Your task to perform on an android device: What's the weather going to be this weekend? Image 0: 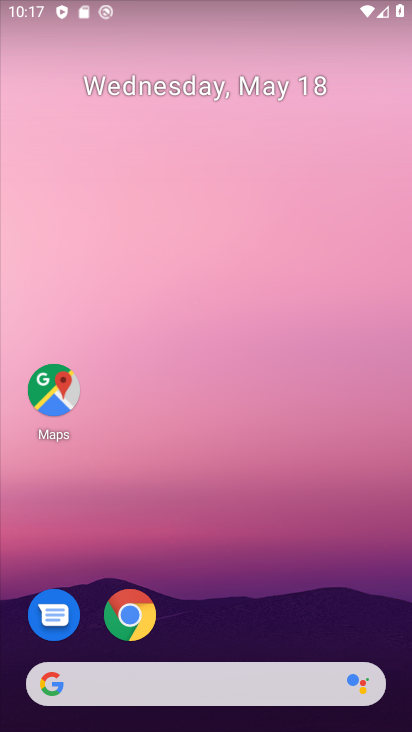
Step 0: drag from (213, 536) to (194, 27)
Your task to perform on an android device: What's the weather going to be this weekend? Image 1: 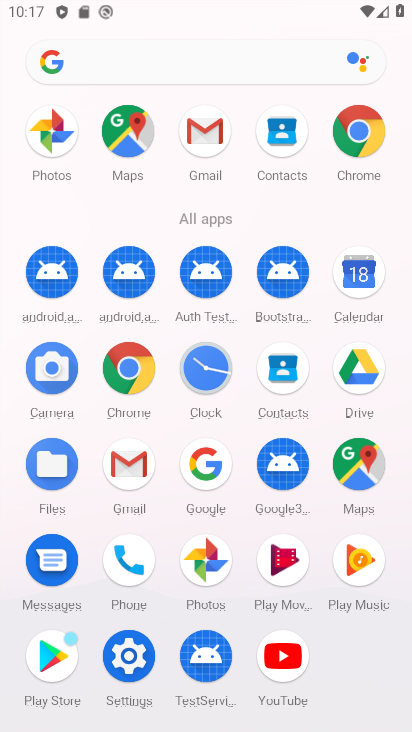
Step 1: drag from (9, 480) to (13, 211)
Your task to perform on an android device: What's the weather going to be this weekend? Image 2: 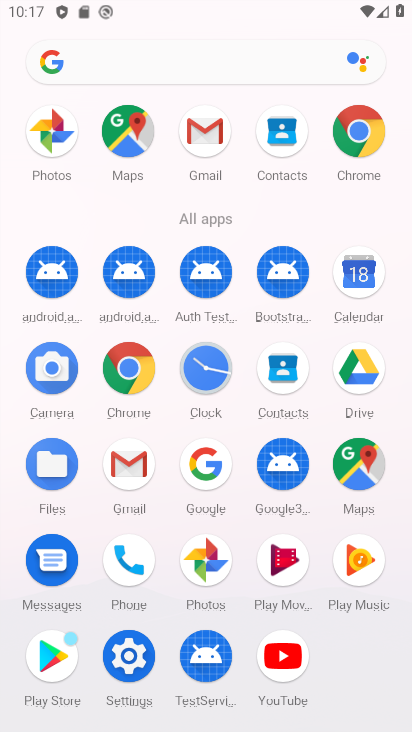
Step 2: click (128, 370)
Your task to perform on an android device: What's the weather going to be this weekend? Image 3: 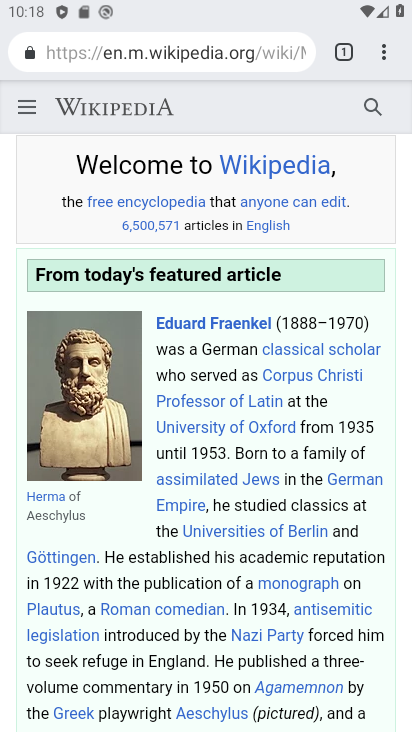
Step 3: click (154, 46)
Your task to perform on an android device: What's the weather going to be this weekend? Image 4: 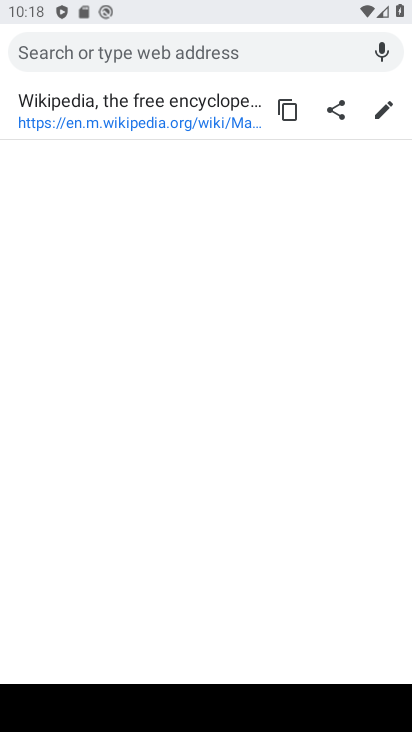
Step 4: type "What's the weather going to be this weekend?"
Your task to perform on an android device: What's the weather going to be this weekend? Image 5: 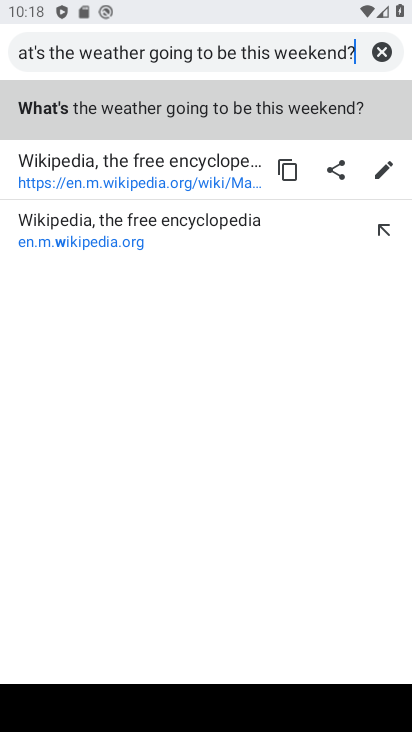
Step 5: type ""
Your task to perform on an android device: What's the weather going to be this weekend? Image 6: 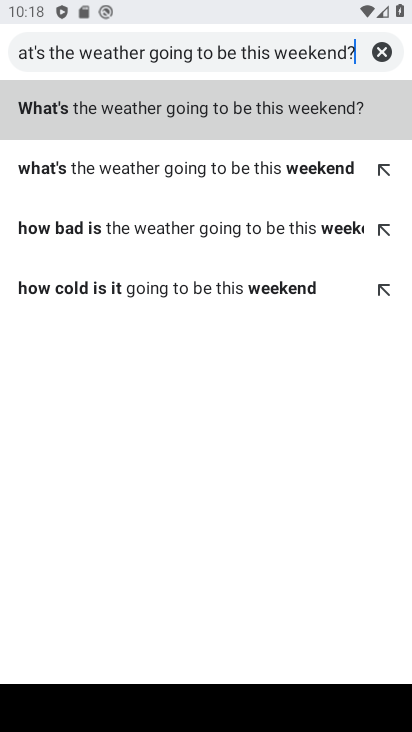
Step 6: click (244, 107)
Your task to perform on an android device: What's the weather going to be this weekend? Image 7: 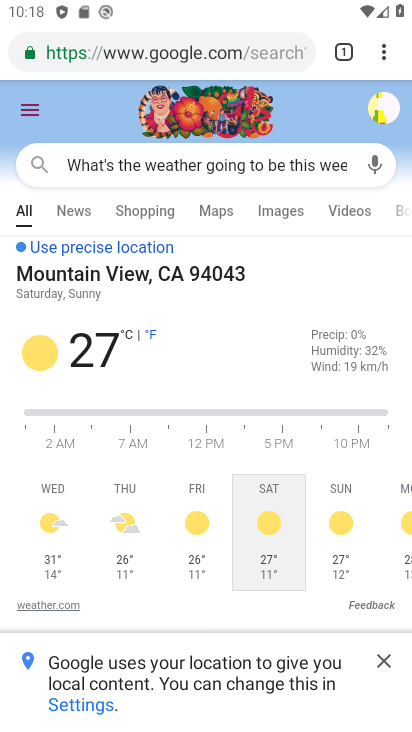
Step 7: task complete